Your task to perform on an android device: Show me recent news Image 0: 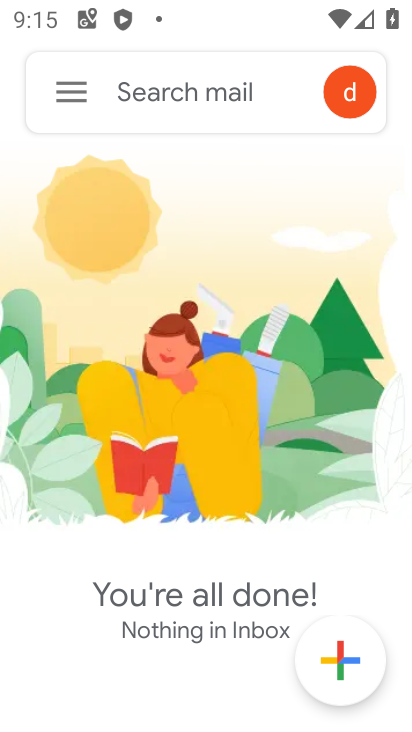
Step 0: press home button
Your task to perform on an android device: Show me recent news Image 1: 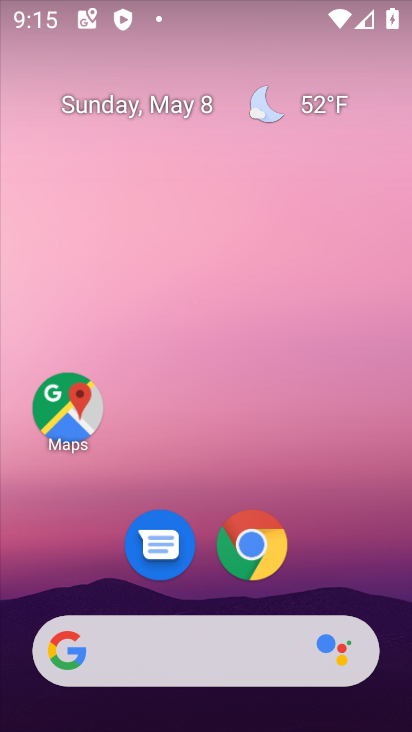
Step 1: task complete